Your task to perform on an android device: turn pop-ups on in chrome Image 0: 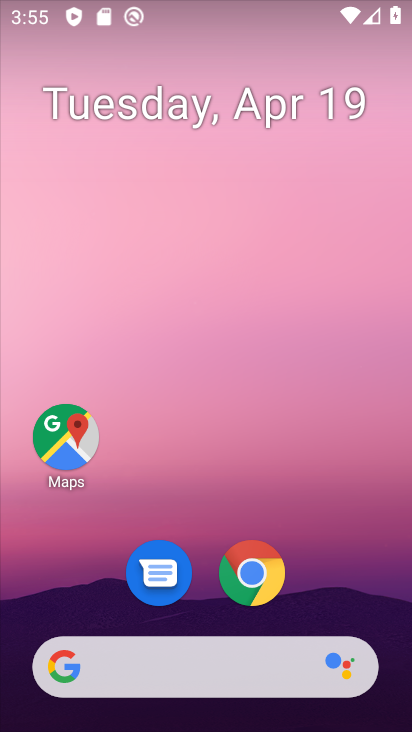
Step 0: click (263, 592)
Your task to perform on an android device: turn pop-ups on in chrome Image 1: 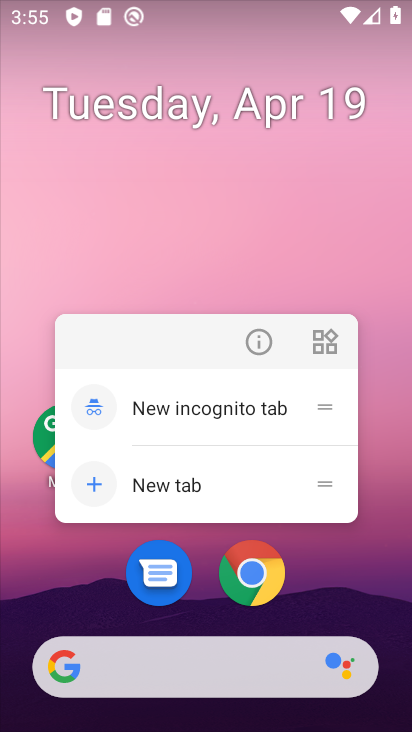
Step 1: click (247, 576)
Your task to perform on an android device: turn pop-ups on in chrome Image 2: 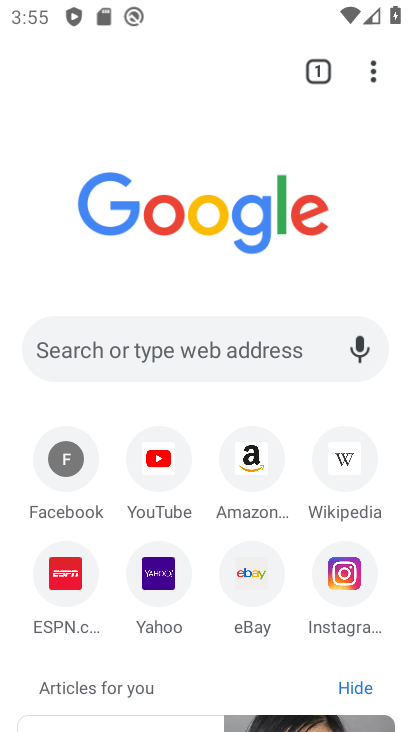
Step 2: click (381, 80)
Your task to perform on an android device: turn pop-ups on in chrome Image 3: 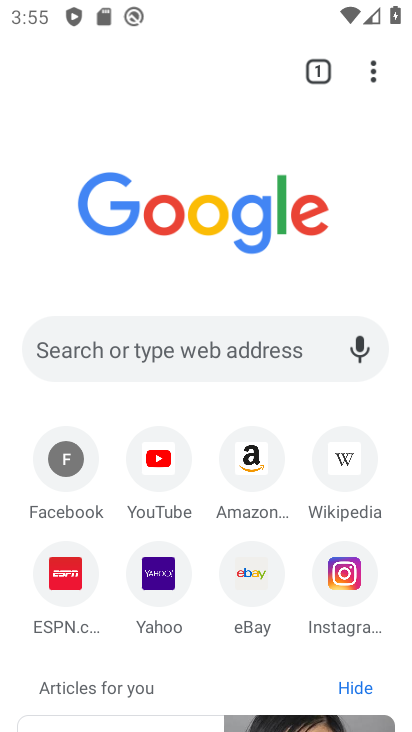
Step 3: drag from (381, 80) to (222, 615)
Your task to perform on an android device: turn pop-ups on in chrome Image 4: 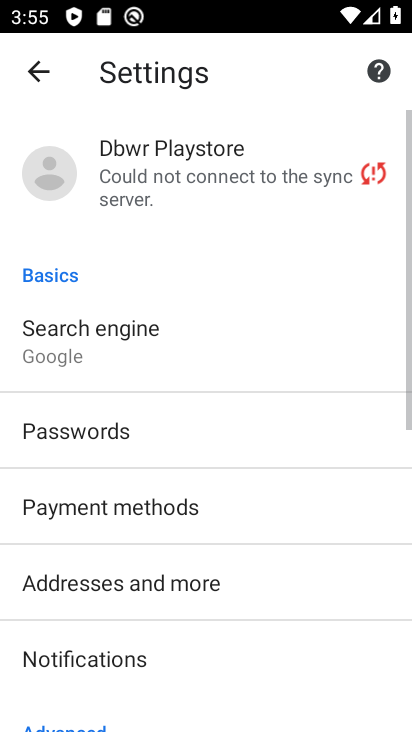
Step 4: drag from (162, 600) to (311, 264)
Your task to perform on an android device: turn pop-ups on in chrome Image 5: 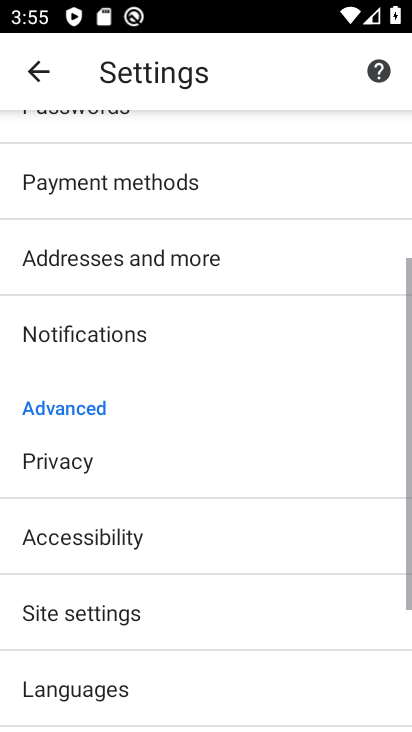
Step 5: drag from (236, 551) to (309, 301)
Your task to perform on an android device: turn pop-ups on in chrome Image 6: 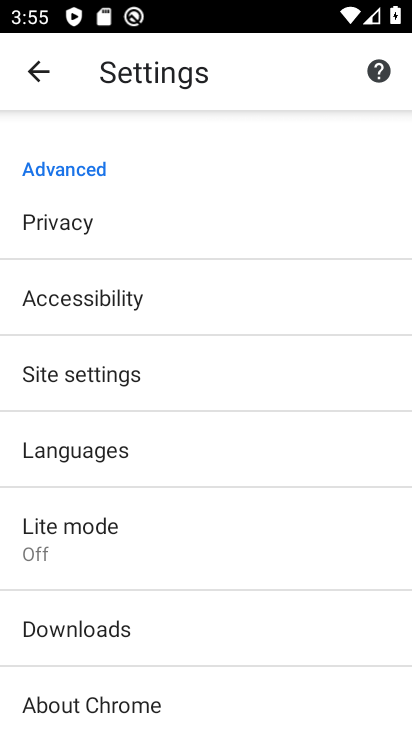
Step 6: drag from (236, 569) to (309, 318)
Your task to perform on an android device: turn pop-ups on in chrome Image 7: 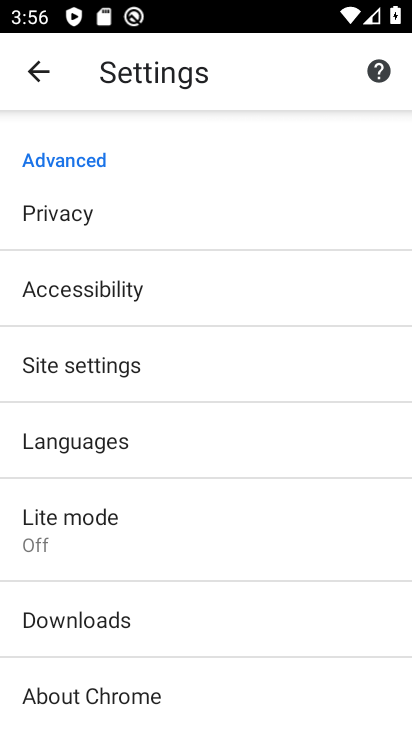
Step 7: click (182, 375)
Your task to perform on an android device: turn pop-ups on in chrome Image 8: 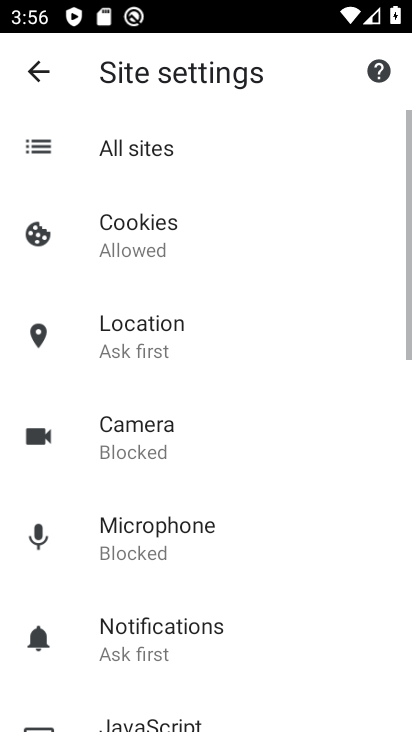
Step 8: task complete